Your task to perform on an android device: empty trash in google photos Image 0: 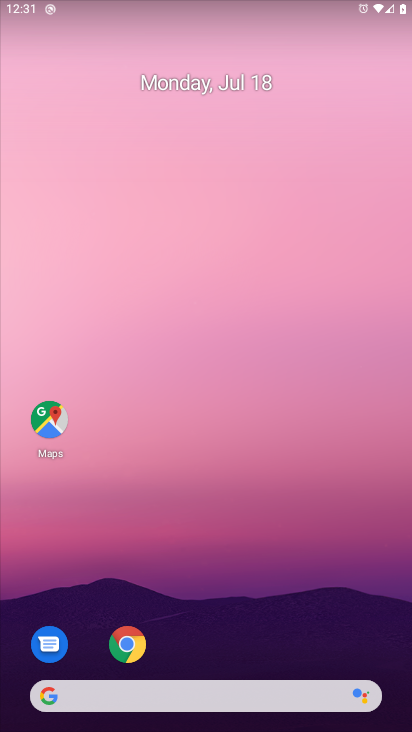
Step 0: press home button
Your task to perform on an android device: empty trash in google photos Image 1: 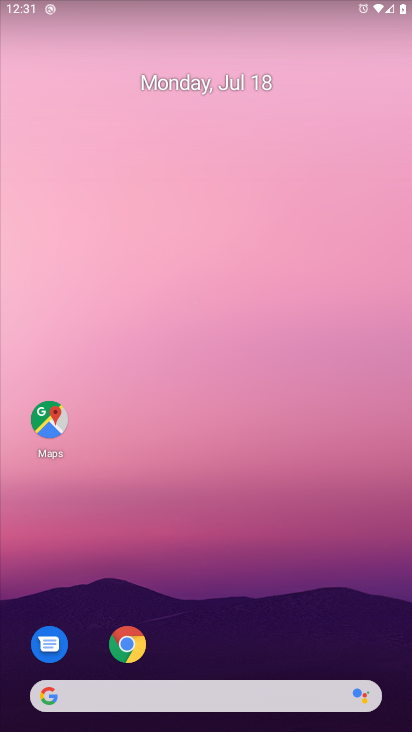
Step 1: drag from (256, 628) to (248, 173)
Your task to perform on an android device: empty trash in google photos Image 2: 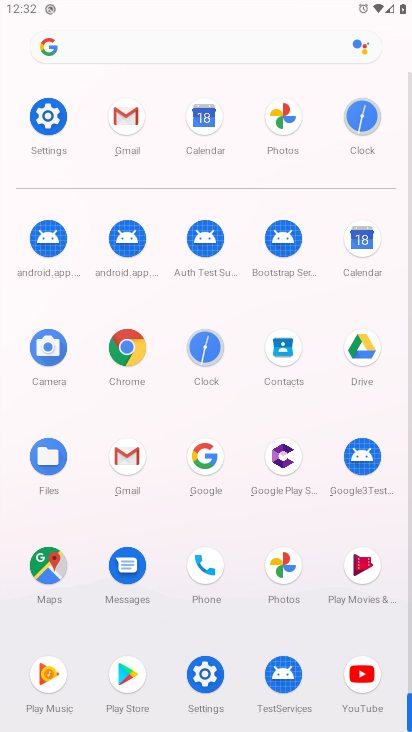
Step 2: click (275, 563)
Your task to perform on an android device: empty trash in google photos Image 3: 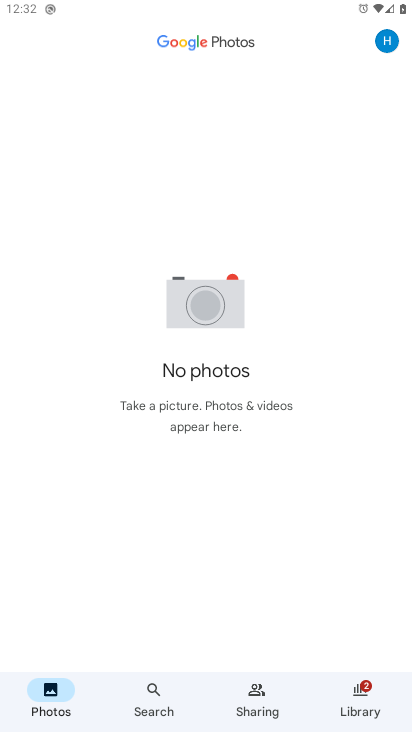
Step 3: click (386, 43)
Your task to perform on an android device: empty trash in google photos Image 4: 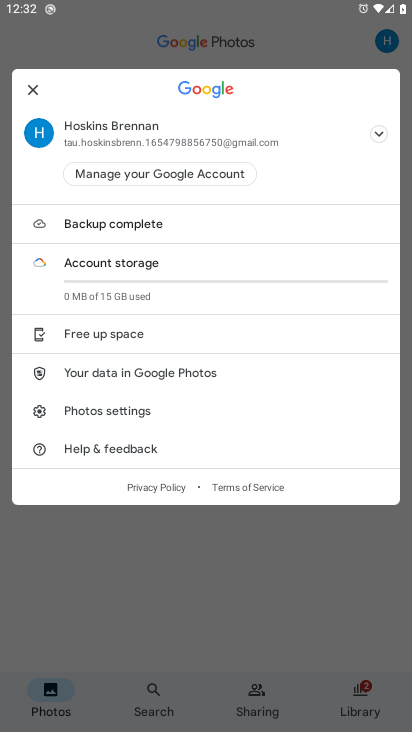
Step 4: task complete